Your task to perform on an android device: Turn off the flashlight Image 0: 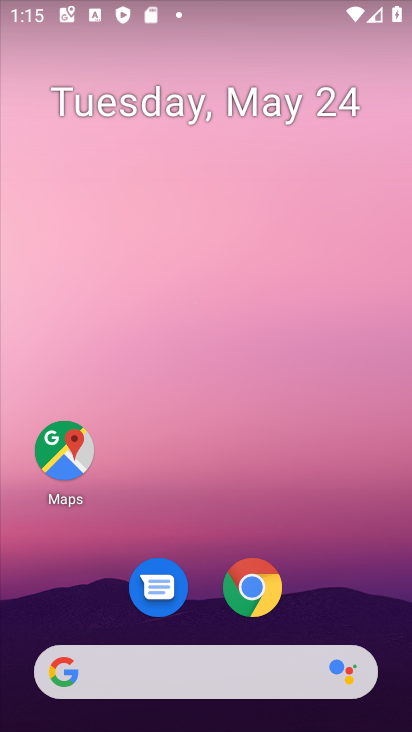
Step 0: drag from (240, 10) to (359, 730)
Your task to perform on an android device: Turn off the flashlight Image 1: 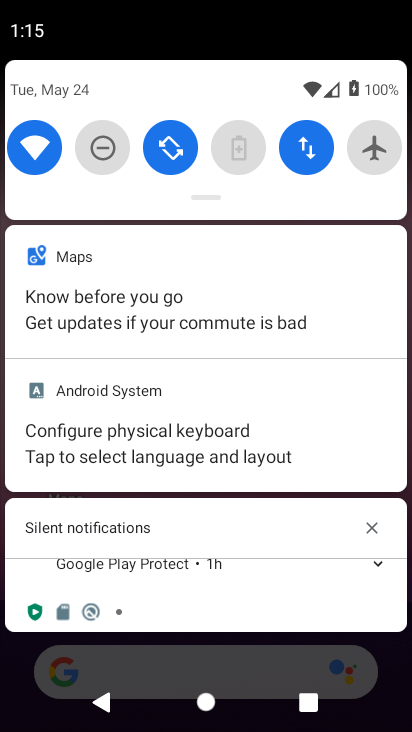
Step 1: task complete